Your task to perform on an android device: turn on improve location accuracy Image 0: 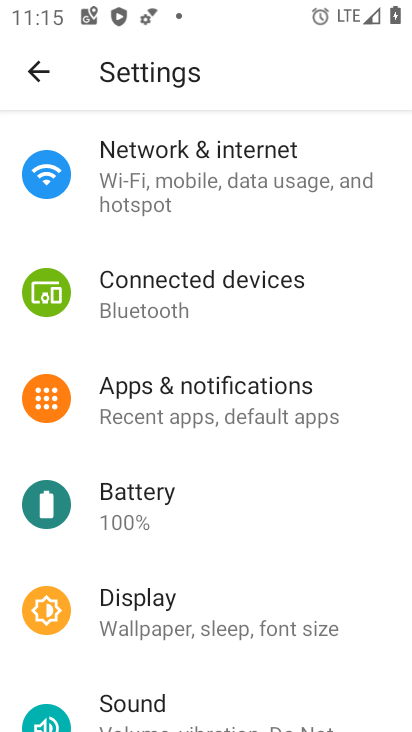
Step 0: drag from (231, 604) to (241, 259)
Your task to perform on an android device: turn on improve location accuracy Image 1: 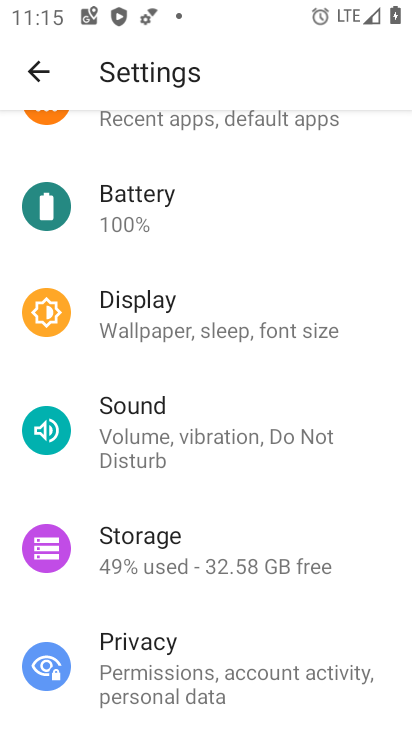
Step 1: drag from (181, 661) to (174, 267)
Your task to perform on an android device: turn on improve location accuracy Image 2: 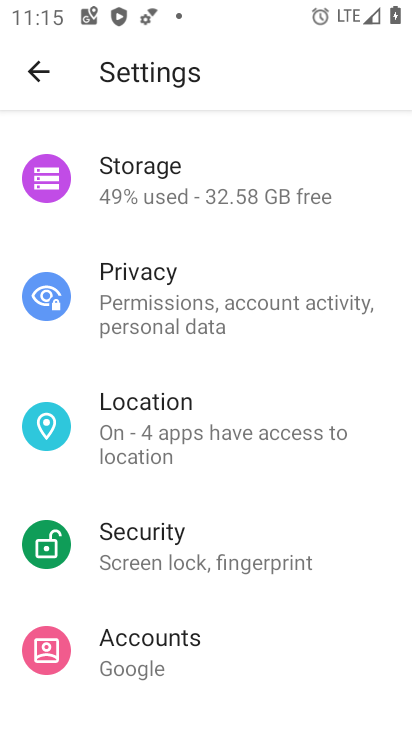
Step 2: click (204, 433)
Your task to perform on an android device: turn on improve location accuracy Image 3: 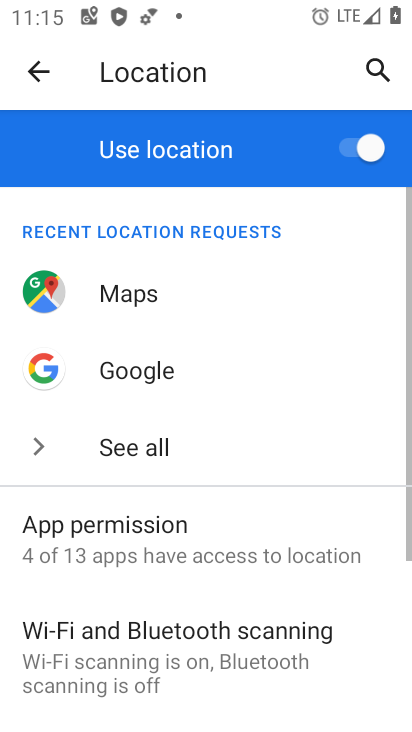
Step 3: drag from (288, 667) to (295, 185)
Your task to perform on an android device: turn on improve location accuracy Image 4: 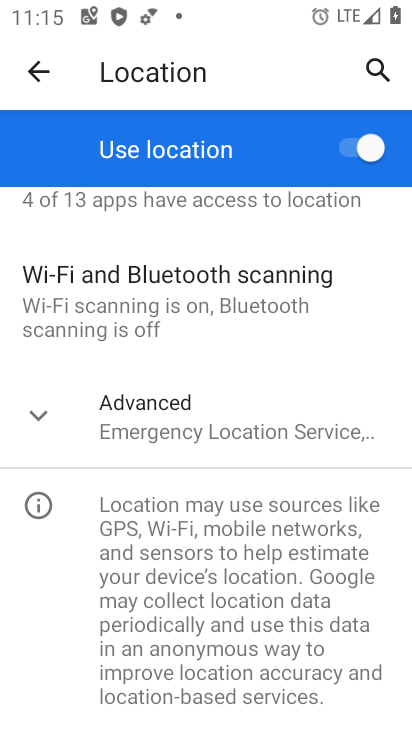
Step 4: click (228, 440)
Your task to perform on an android device: turn on improve location accuracy Image 5: 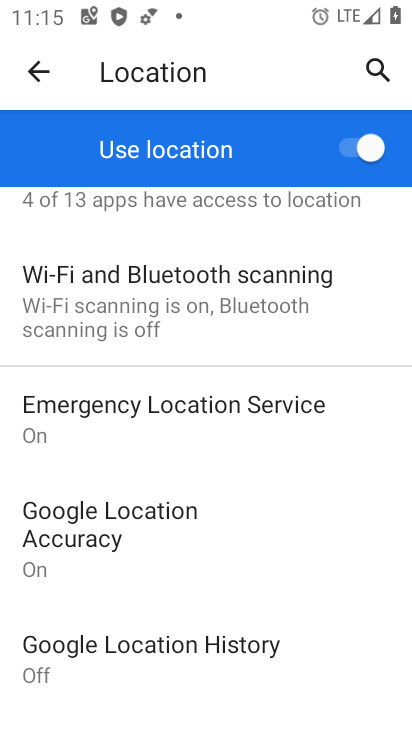
Step 5: click (94, 557)
Your task to perform on an android device: turn on improve location accuracy Image 6: 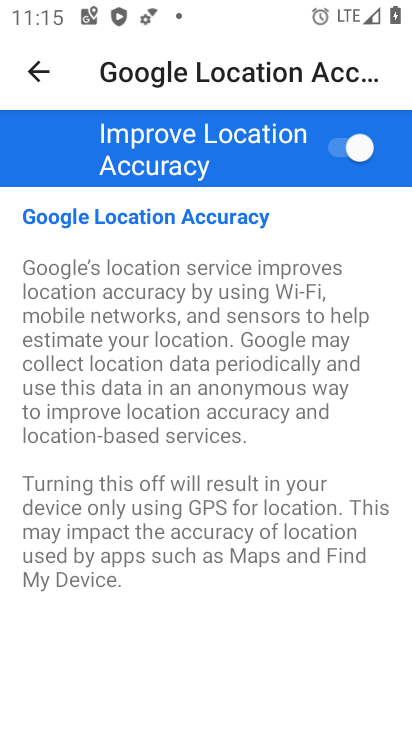
Step 6: task complete